Your task to perform on an android device: Turn off the flashlight Image 0: 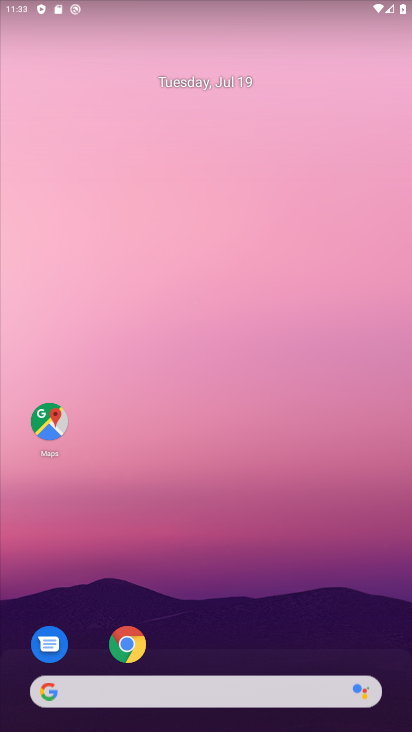
Step 0: press home button
Your task to perform on an android device: Turn off the flashlight Image 1: 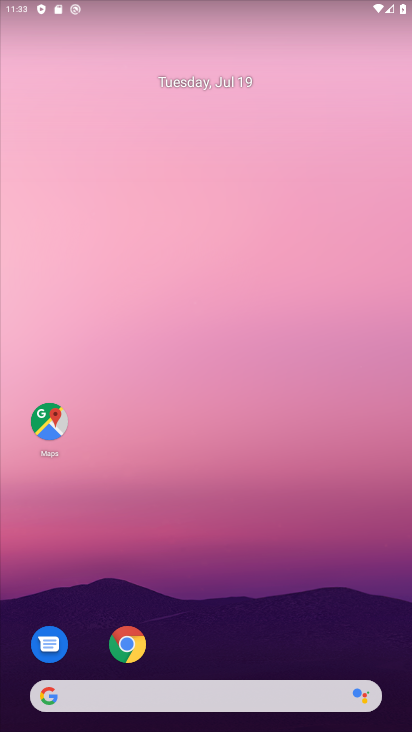
Step 1: drag from (238, 652) to (236, 258)
Your task to perform on an android device: Turn off the flashlight Image 2: 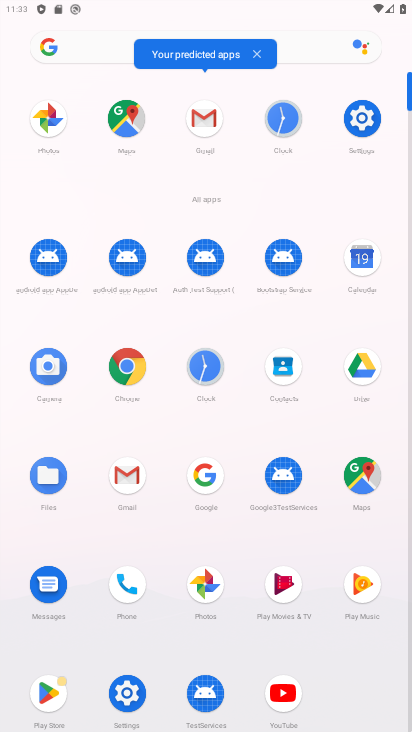
Step 2: click (369, 95)
Your task to perform on an android device: Turn off the flashlight Image 3: 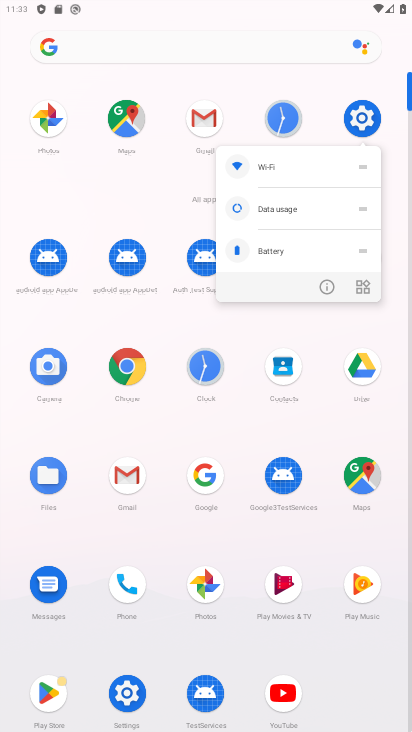
Step 3: click (365, 108)
Your task to perform on an android device: Turn off the flashlight Image 4: 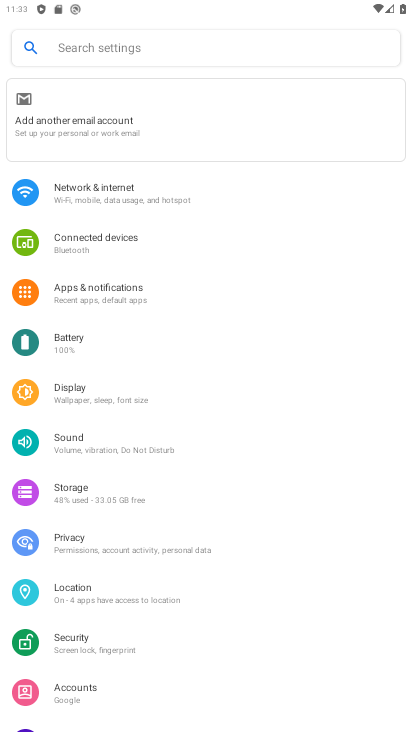
Step 4: task complete